Your task to perform on an android device: check google app version Image 0: 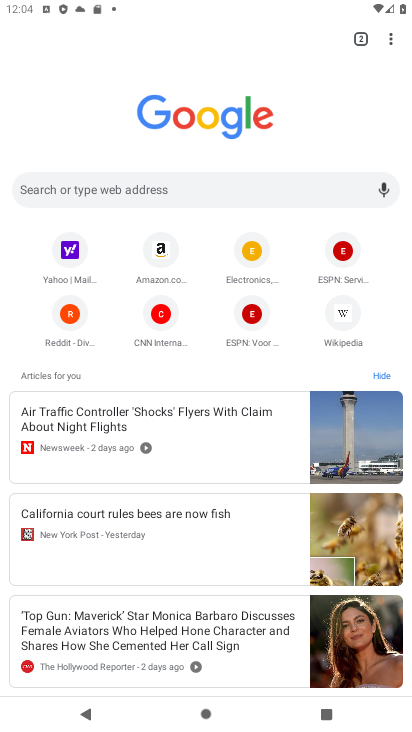
Step 0: press home button
Your task to perform on an android device: check google app version Image 1: 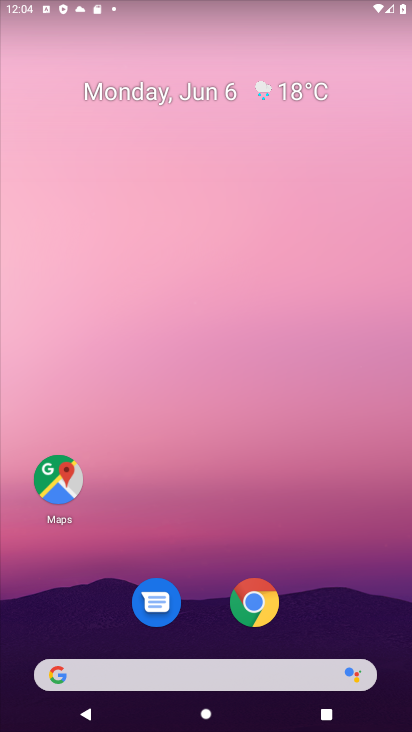
Step 1: drag from (327, 540) to (318, 112)
Your task to perform on an android device: check google app version Image 2: 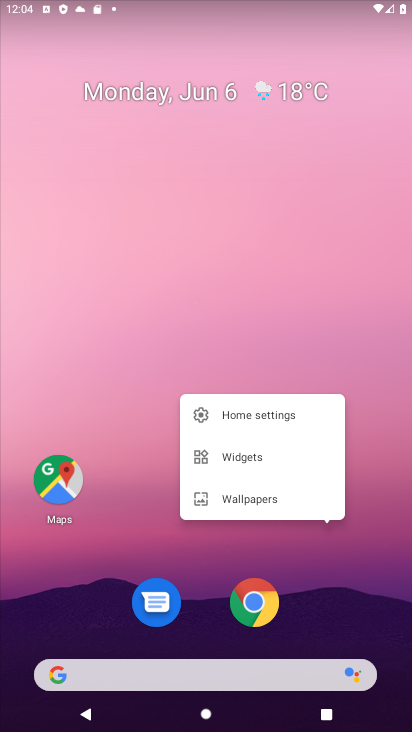
Step 2: click (272, 247)
Your task to perform on an android device: check google app version Image 3: 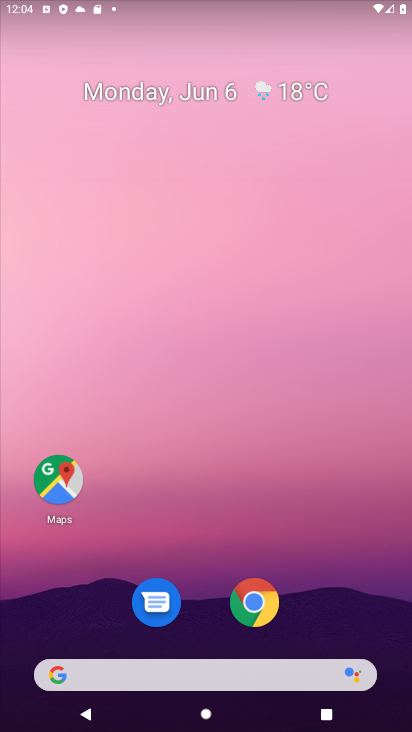
Step 3: drag from (222, 546) to (216, 202)
Your task to perform on an android device: check google app version Image 4: 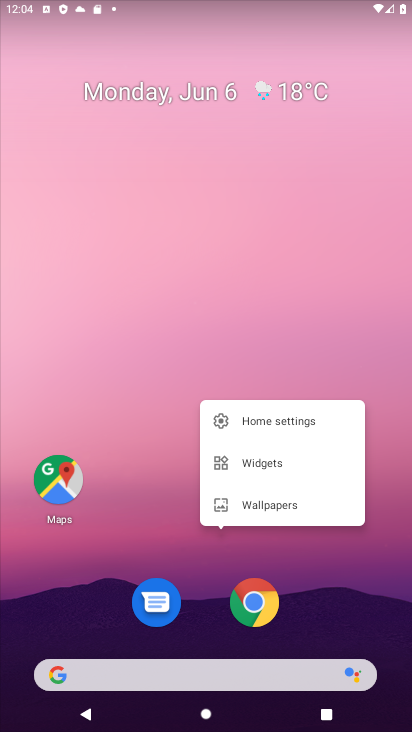
Step 4: click (209, 232)
Your task to perform on an android device: check google app version Image 5: 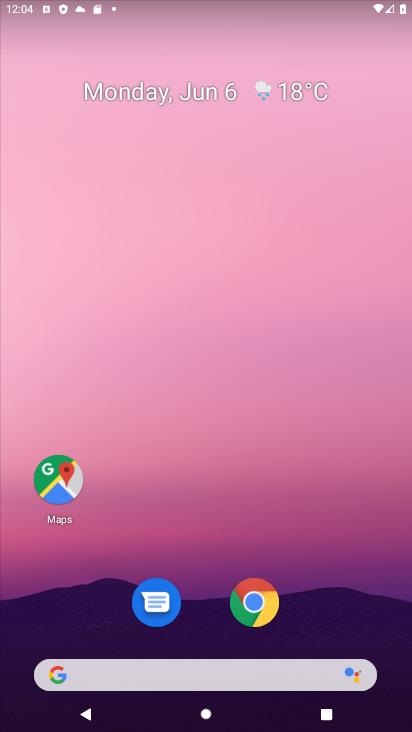
Step 5: drag from (196, 571) to (235, 97)
Your task to perform on an android device: check google app version Image 6: 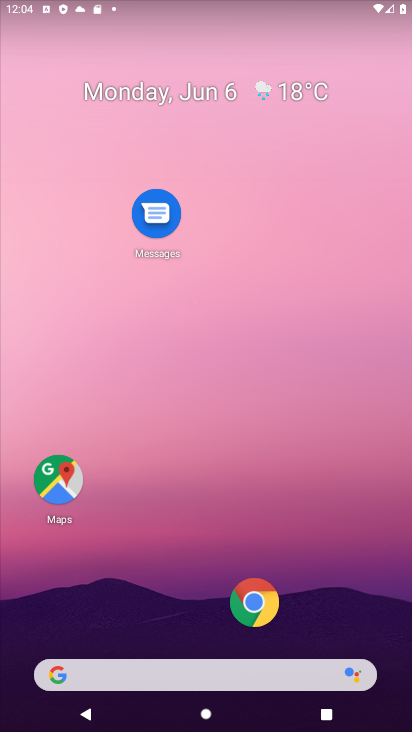
Step 6: click (191, 461)
Your task to perform on an android device: check google app version Image 7: 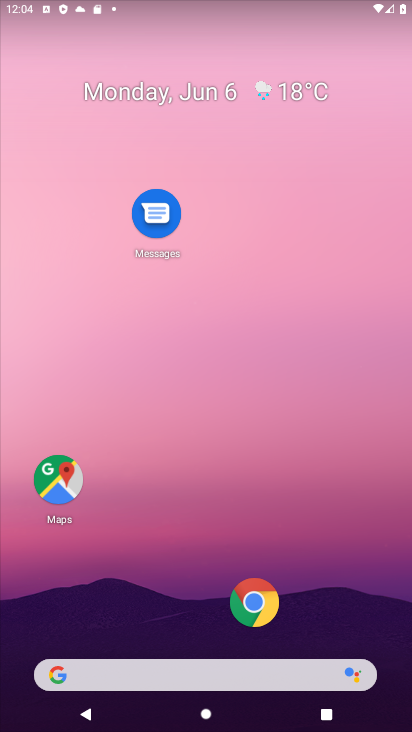
Step 7: task complete